Your task to perform on an android device: check the backup settings in the google photos Image 0: 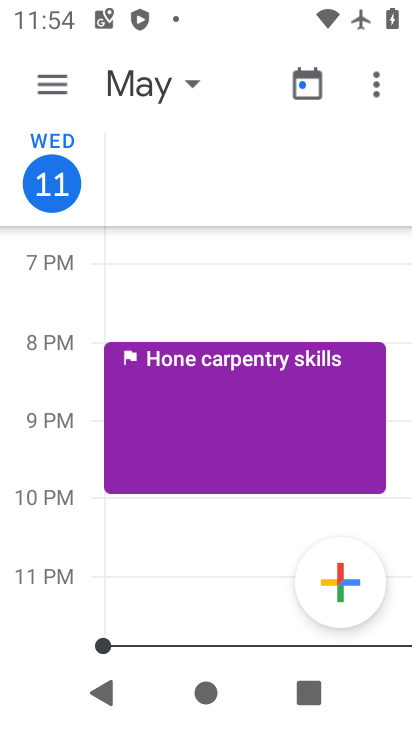
Step 0: drag from (233, 606) to (294, 265)
Your task to perform on an android device: check the backup settings in the google photos Image 1: 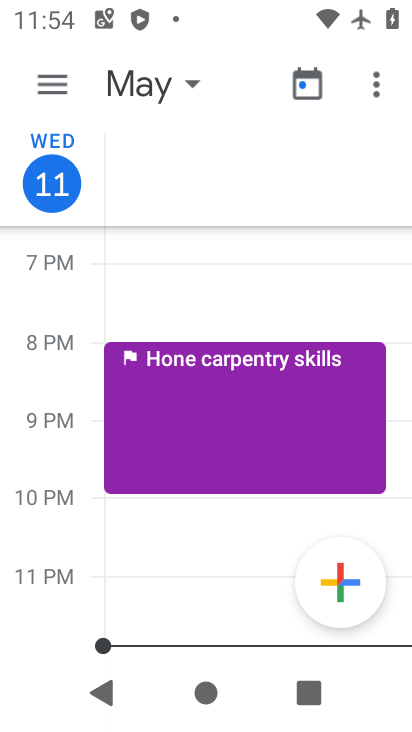
Step 1: press home button
Your task to perform on an android device: check the backup settings in the google photos Image 2: 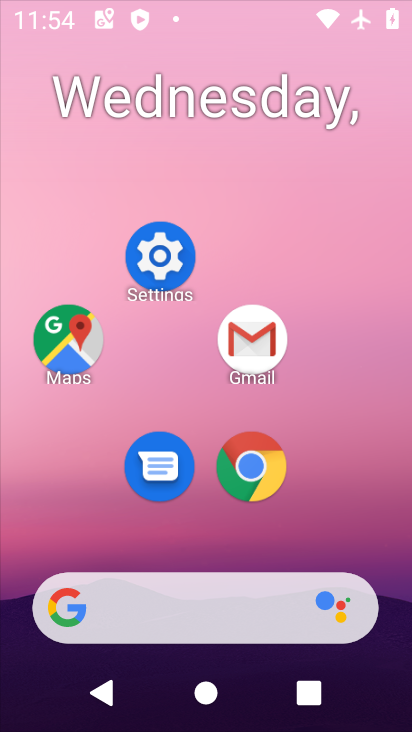
Step 2: drag from (249, 558) to (263, 188)
Your task to perform on an android device: check the backup settings in the google photos Image 3: 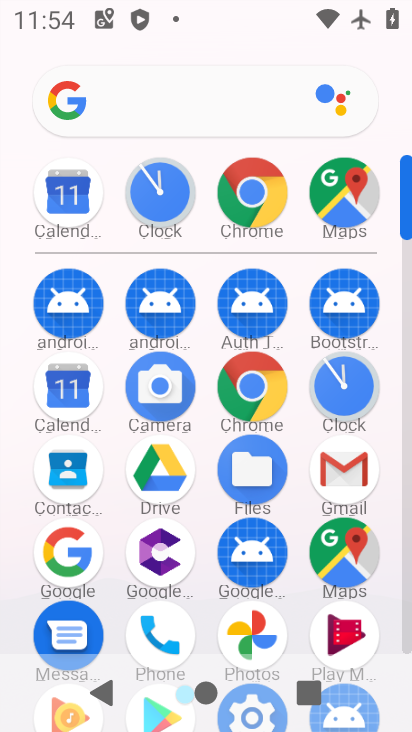
Step 3: click (255, 631)
Your task to perform on an android device: check the backup settings in the google photos Image 4: 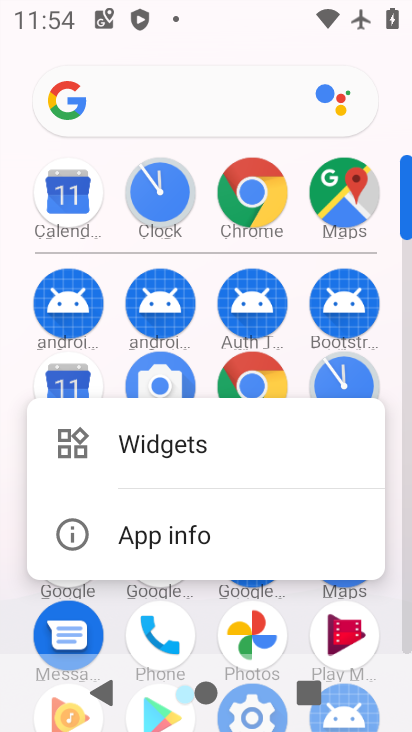
Step 4: click (136, 543)
Your task to perform on an android device: check the backup settings in the google photos Image 5: 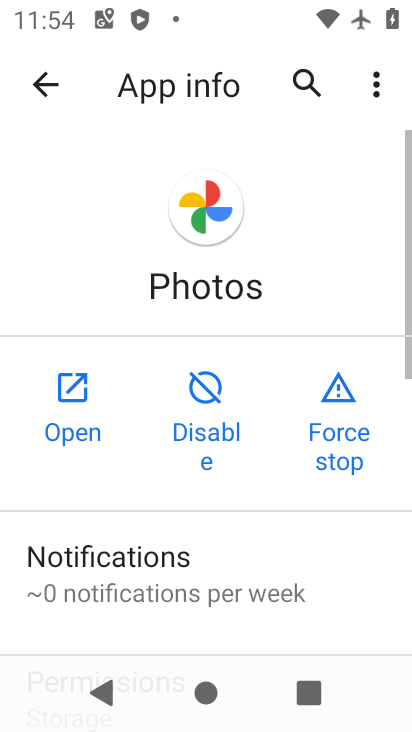
Step 5: click (46, 417)
Your task to perform on an android device: check the backup settings in the google photos Image 6: 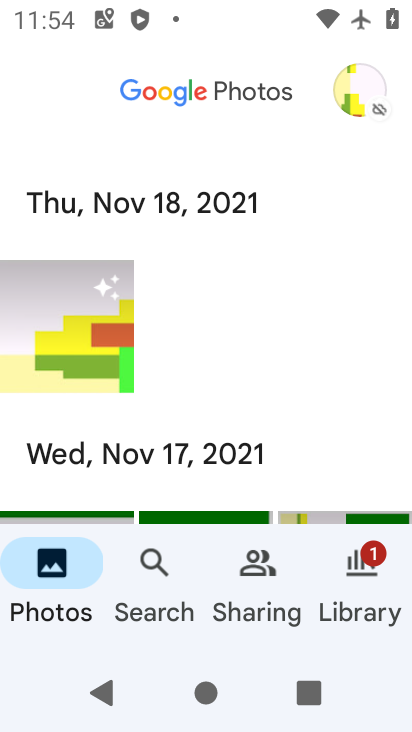
Step 6: drag from (177, 521) to (298, 184)
Your task to perform on an android device: check the backup settings in the google photos Image 7: 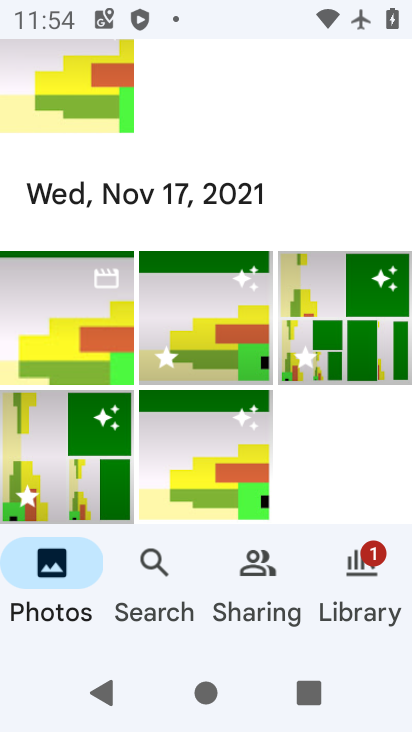
Step 7: click (353, 597)
Your task to perform on an android device: check the backup settings in the google photos Image 8: 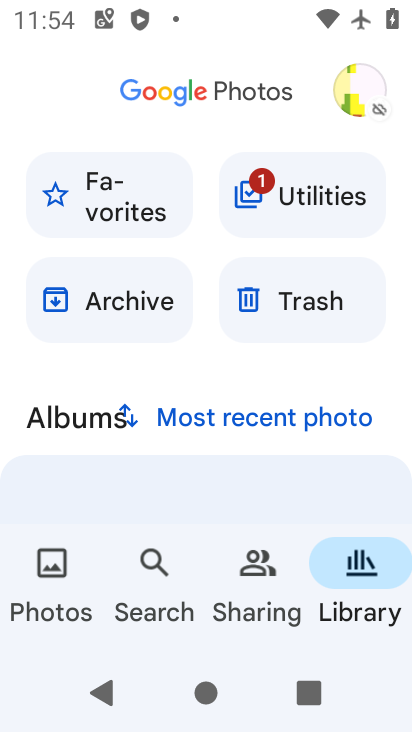
Step 8: click (357, 95)
Your task to perform on an android device: check the backup settings in the google photos Image 9: 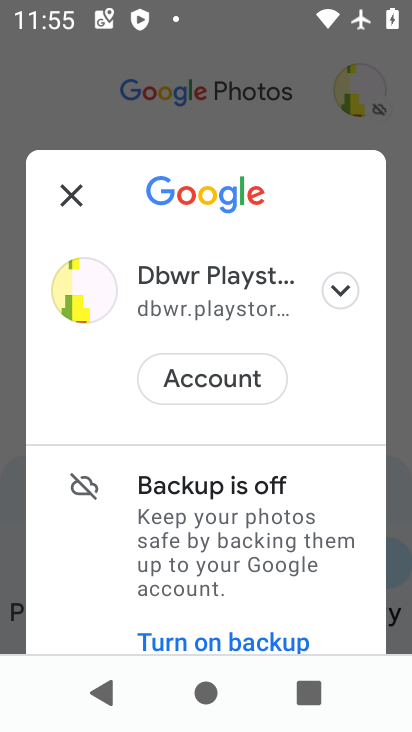
Step 9: drag from (237, 529) to (263, 86)
Your task to perform on an android device: check the backup settings in the google photos Image 10: 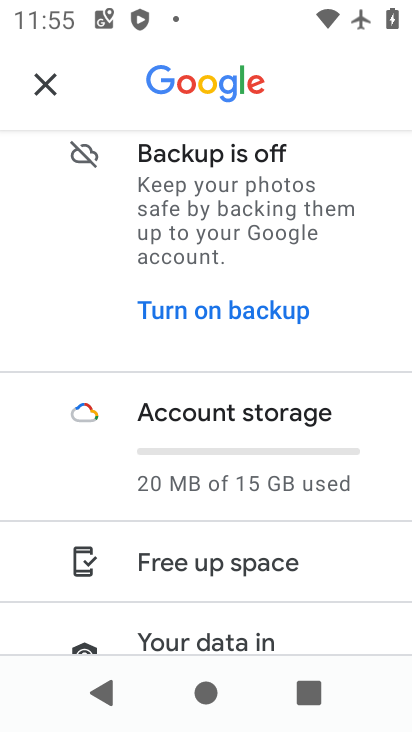
Step 10: drag from (206, 507) to (255, 175)
Your task to perform on an android device: check the backup settings in the google photos Image 11: 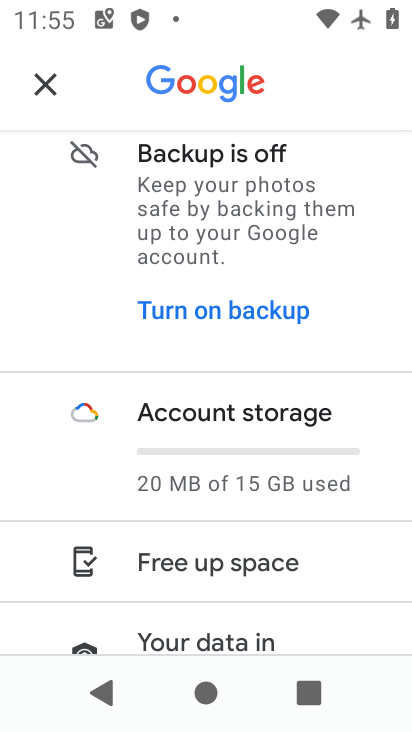
Step 11: drag from (237, 497) to (273, 129)
Your task to perform on an android device: check the backup settings in the google photos Image 12: 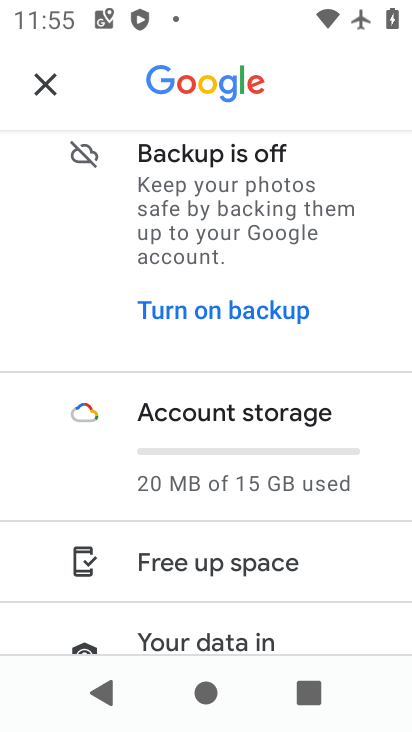
Step 12: drag from (204, 429) to (202, 265)
Your task to perform on an android device: check the backup settings in the google photos Image 13: 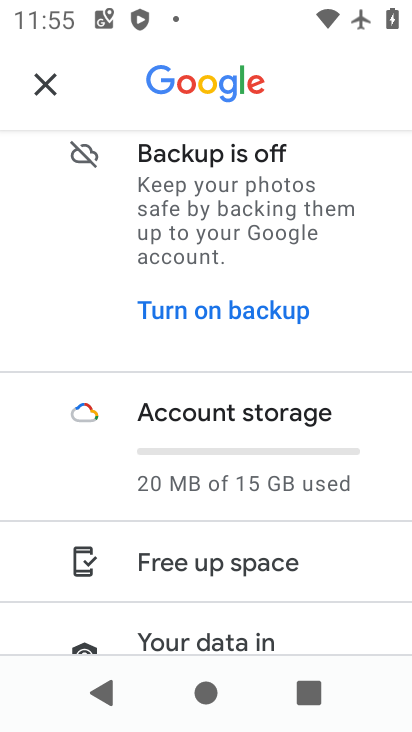
Step 13: drag from (224, 600) to (268, 230)
Your task to perform on an android device: check the backup settings in the google photos Image 14: 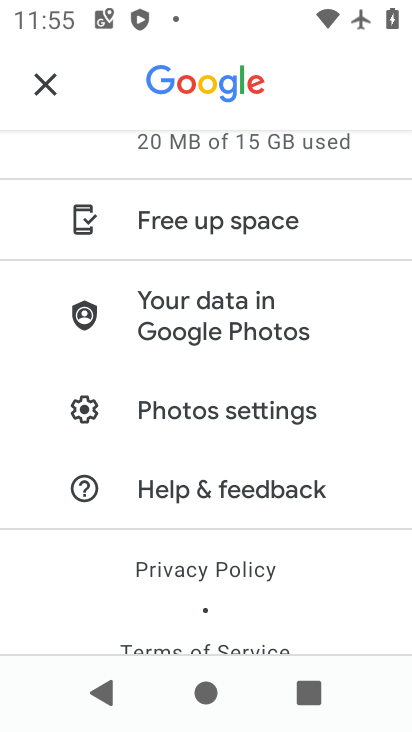
Step 14: click (230, 406)
Your task to perform on an android device: check the backup settings in the google photos Image 15: 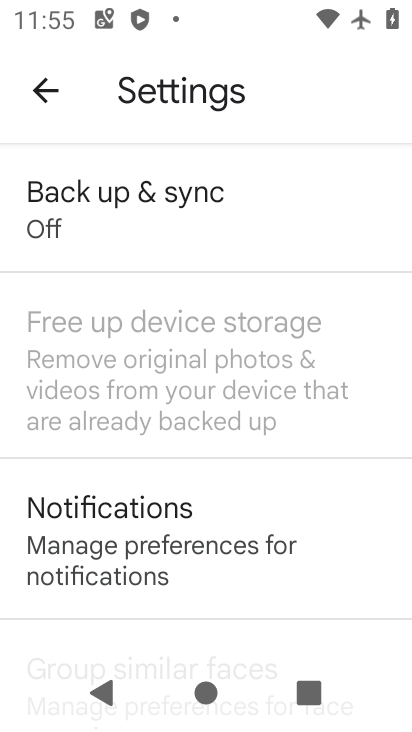
Step 15: drag from (204, 573) to (229, 256)
Your task to perform on an android device: check the backup settings in the google photos Image 16: 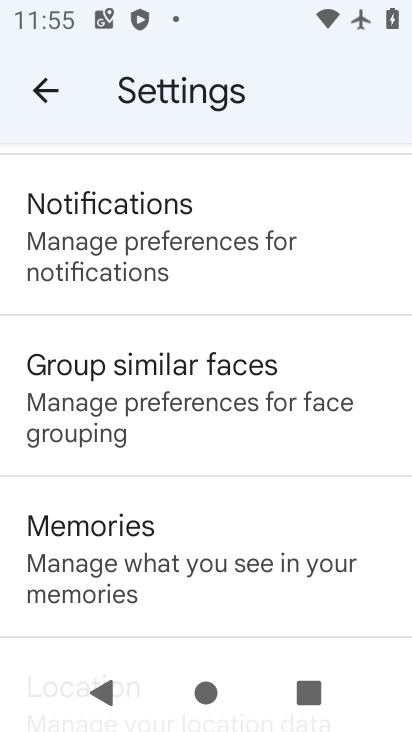
Step 16: drag from (164, 294) to (290, 709)
Your task to perform on an android device: check the backup settings in the google photos Image 17: 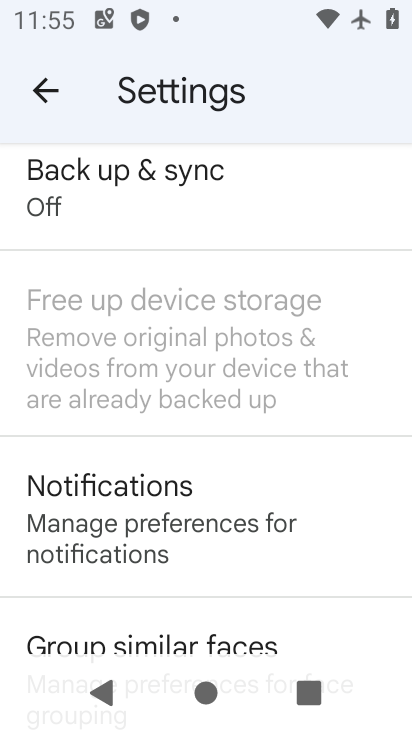
Step 17: click (99, 202)
Your task to perform on an android device: check the backup settings in the google photos Image 18: 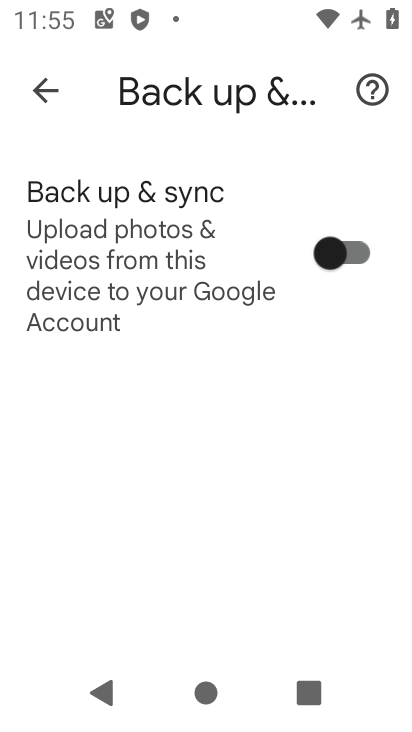
Step 18: click (333, 254)
Your task to perform on an android device: check the backup settings in the google photos Image 19: 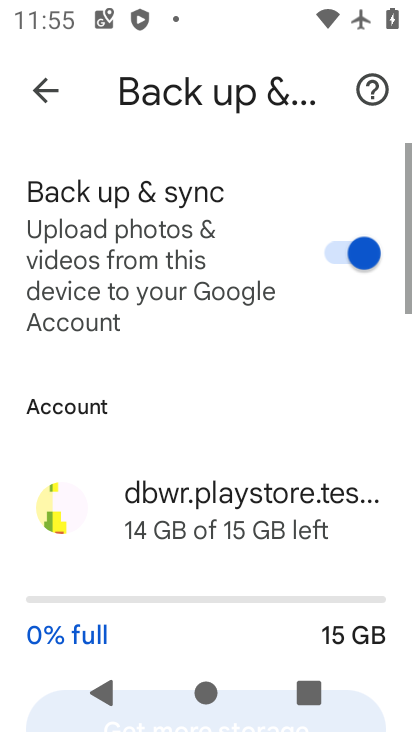
Step 19: task complete